Your task to perform on an android device: Open the calendar and show me this week's events? Image 0: 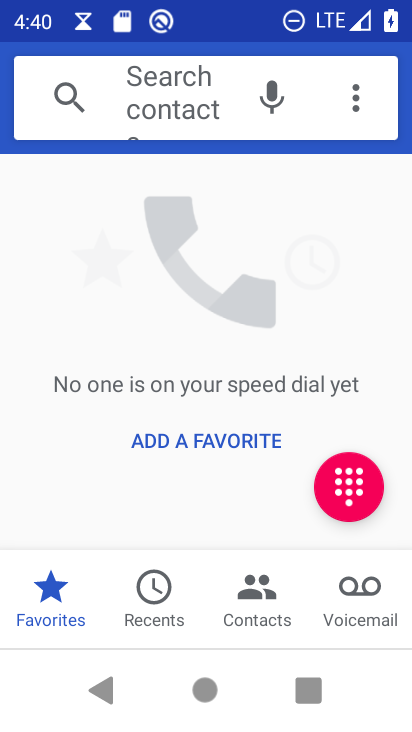
Step 0: press home button
Your task to perform on an android device: Open the calendar and show me this week's events? Image 1: 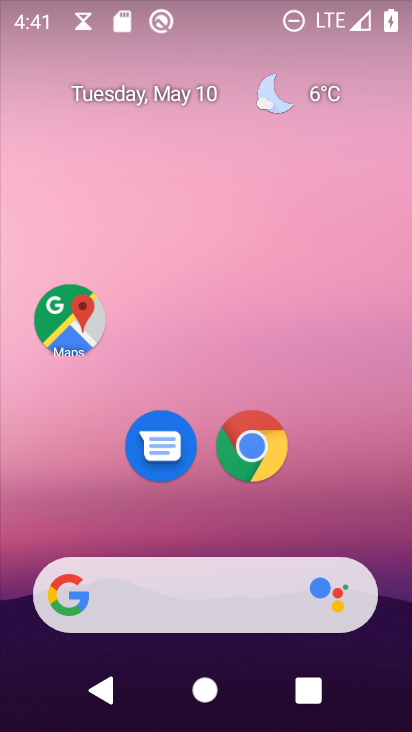
Step 1: drag from (229, 523) to (182, 133)
Your task to perform on an android device: Open the calendar and show me this week's events? Image 2: 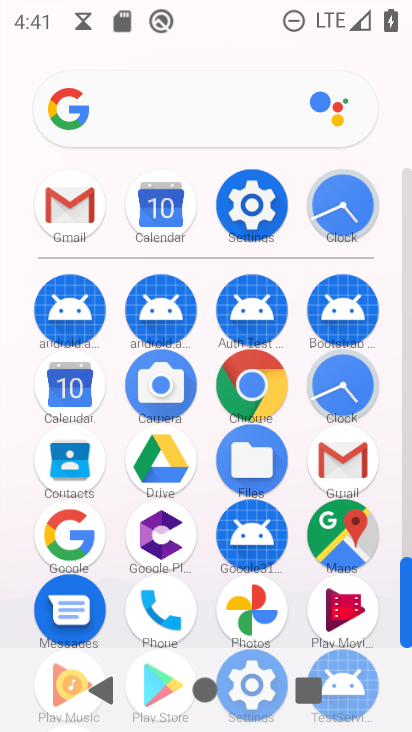
Step 2: click (78, 375)
Your task to perform on an android device: Open the calendar and show me this week's events? Image 3: 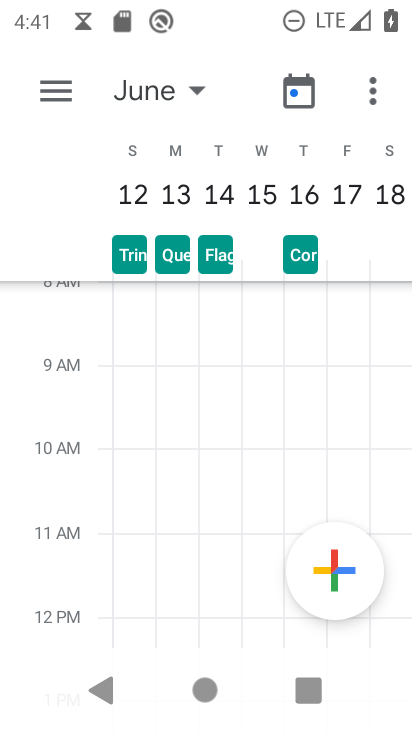
Step 3: click (197, 85)
Your task to perform on an android device: Open the calendar and show me this week's events? Image 4: 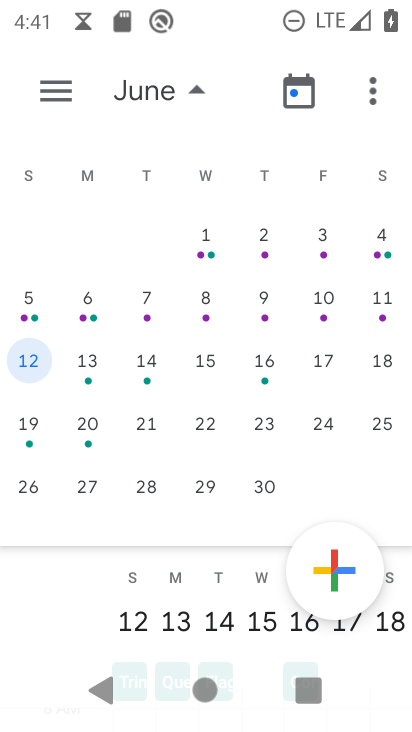
Step 4: drag from (144, 343) to (400, 270)
Your task to perform on an android device: Open the calendar and show me this week's events? Image 5: 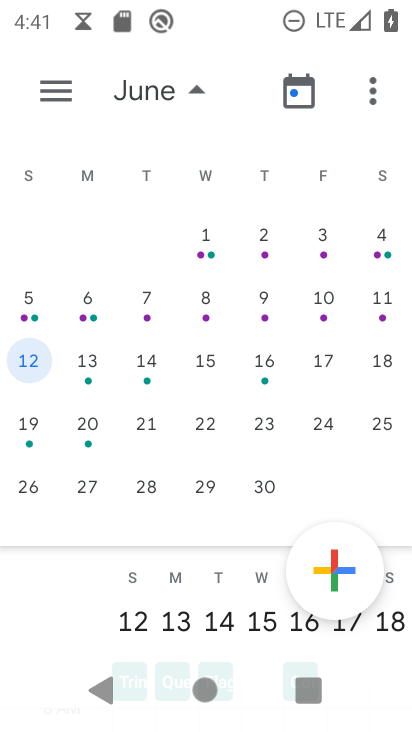
Step 5: drag from (100, 348) to (408, 316)
Your task to perform on an android device: Open the calendar and show me this week's events? Image 6: 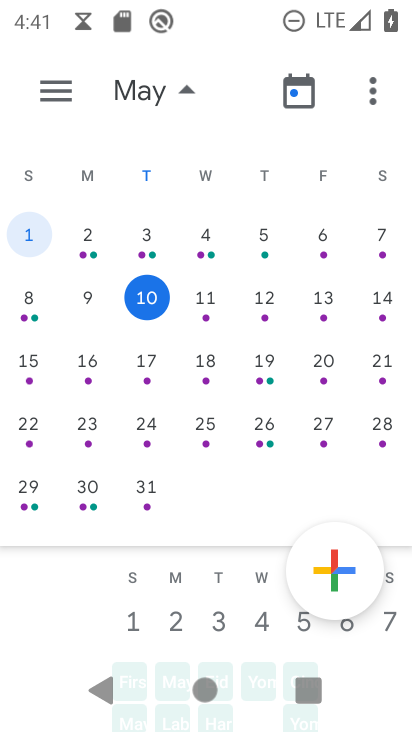
Step 6: click (37, 300)
Your task to perform on an android device: Open the calendar and show me this week's events? Image 7: 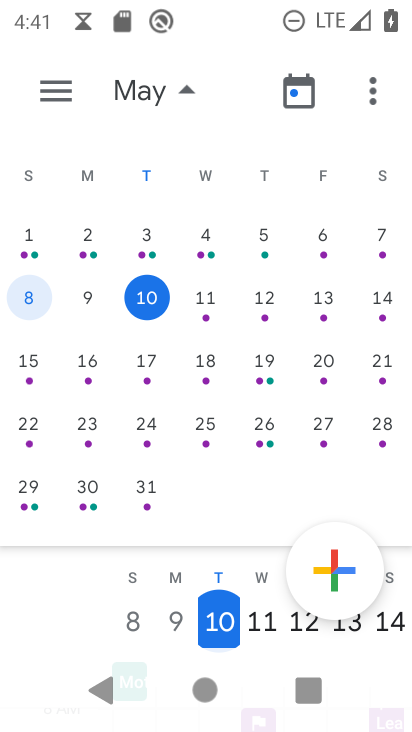
Step 7: task complete